Your task to perform on an android device: Open CNN.com Image 0: 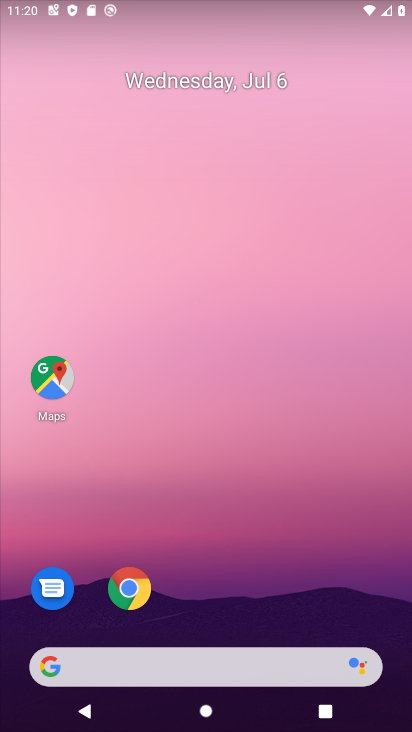
Step 0: drag from (269, 541) to (271, 341)
Your task to perform on an android device: Open CNN.com Image 1: 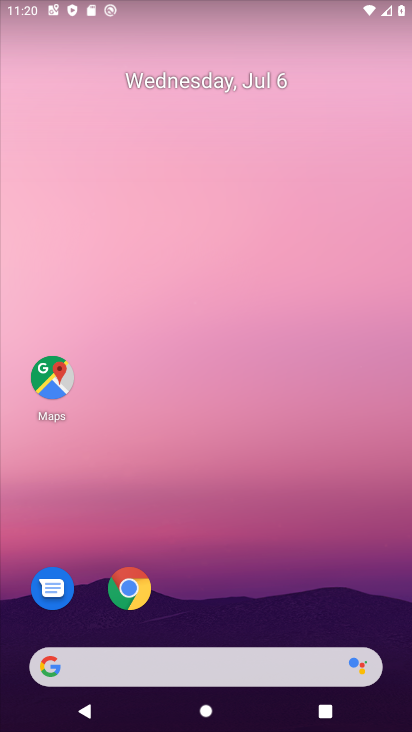
Step 1: drag from (232, 598) to (229, 180)
Your task to perform on an android device: Open CNN.com Image 2: 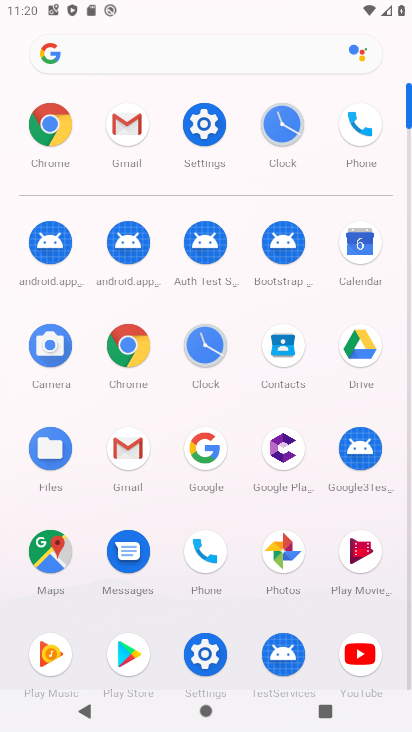
Step 2: click (47, 129)
Your task to perform on an android device: Open CNN.com Image 3: 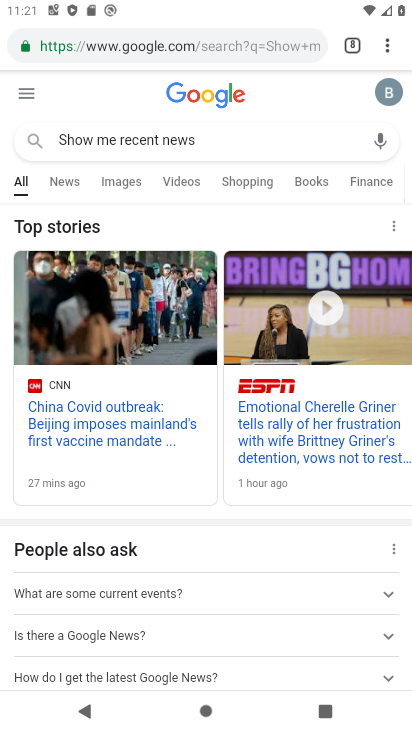
Step 3: click (386, 44)
Your task to perform on an android device: Open CNN.com Image 4: 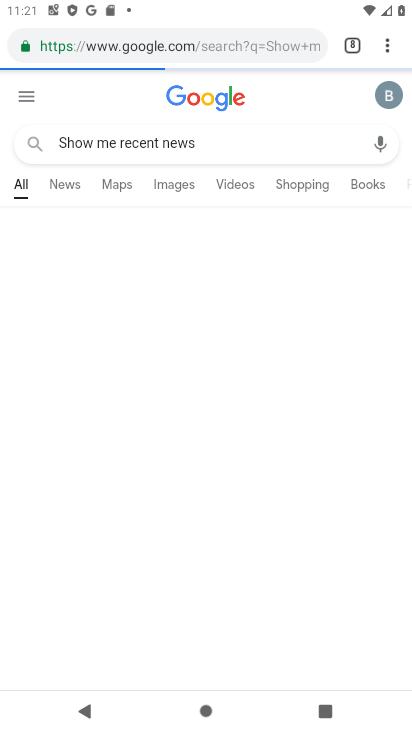
Step 4: click (386, 44)
Your task to perform on an android device: Open CNN.com Image 5: 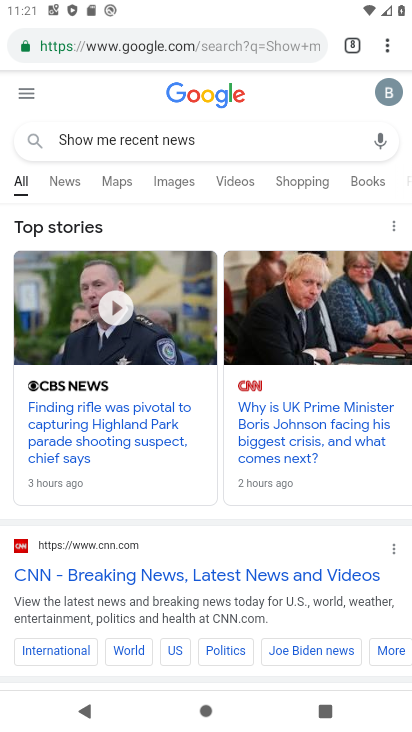
Step 5: click (386, 44)
Your task to perform on an android device: Open CNN.com Image 6: 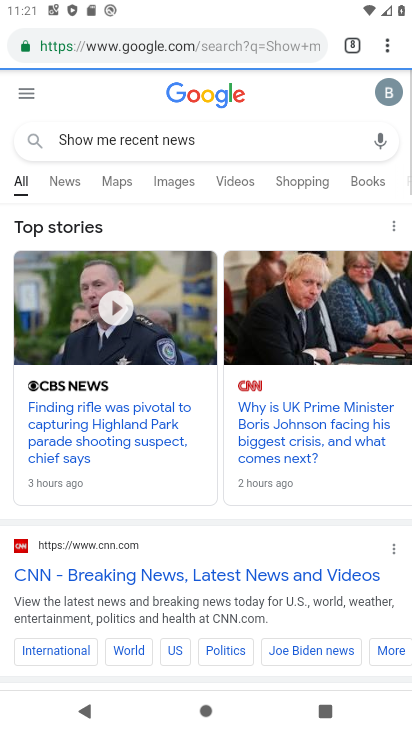
Step 6: click (381, 46)
Your task to perform on an android device: Open CNN.com Image 7: 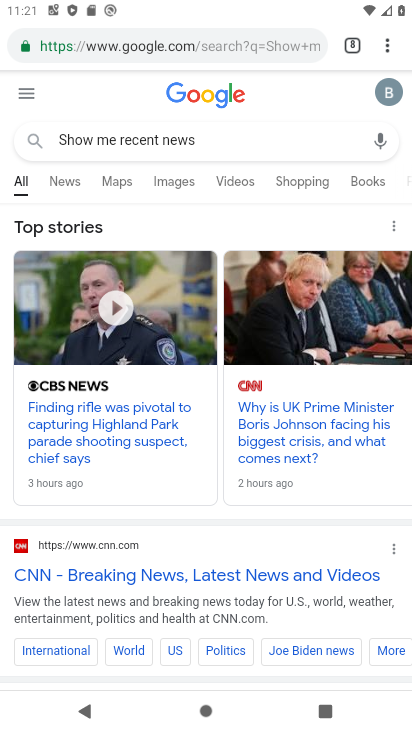
Step 7: click (381, 46)
Your task to perform on an android device: Open CNN.com Image 8: 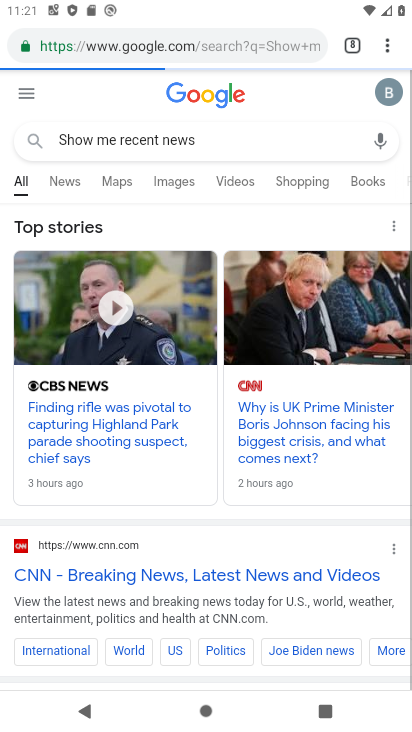
Step 8: click (387, 48)
Your task to perform on an android device: Open CNN.com Image 9: 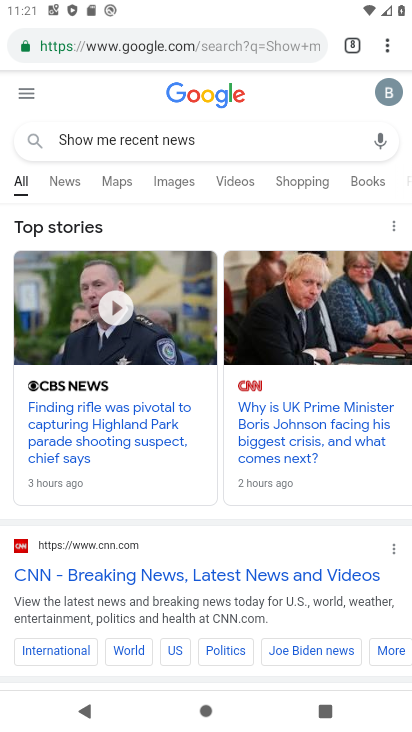
Step 9: click (387, 48)
Your task to perform on an android device: Open CNN.com Image 10: 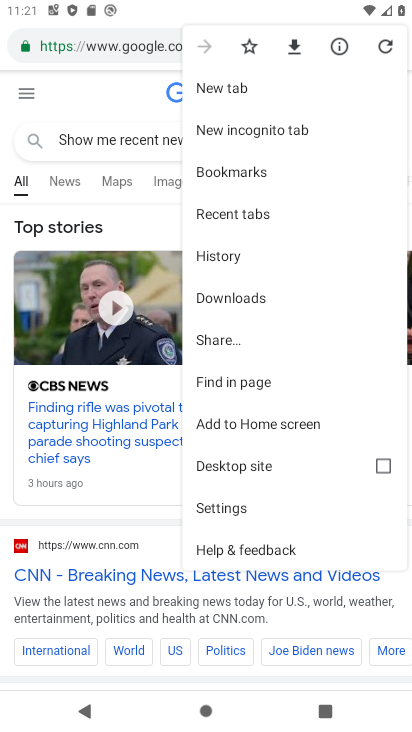
Step 10: click (204, 92)
Your task to perform on an android device: Open CNN.com Image 11: 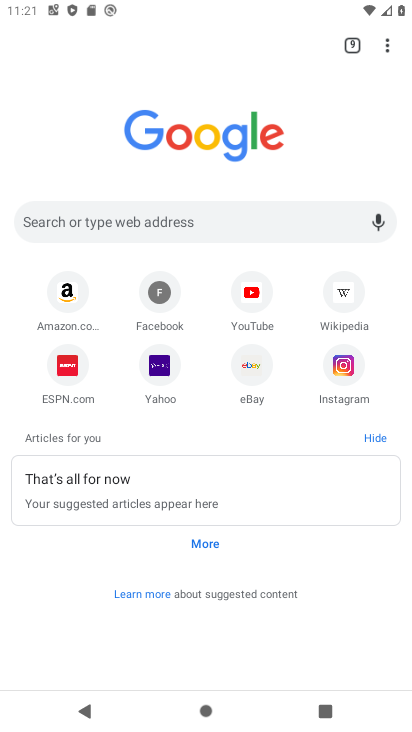
Step 11: click (151, 223)
Your task to perform on an android device: Open CNN.com Image 12: 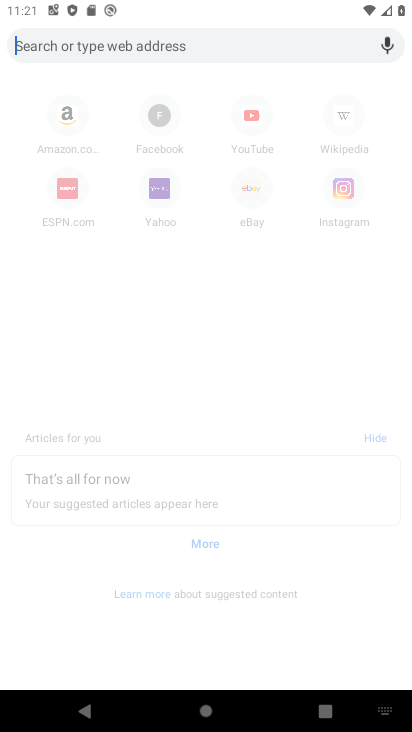
Step 12: type "CNN.com "
Your task to perform on an android device: Open CNN.com Image 13: 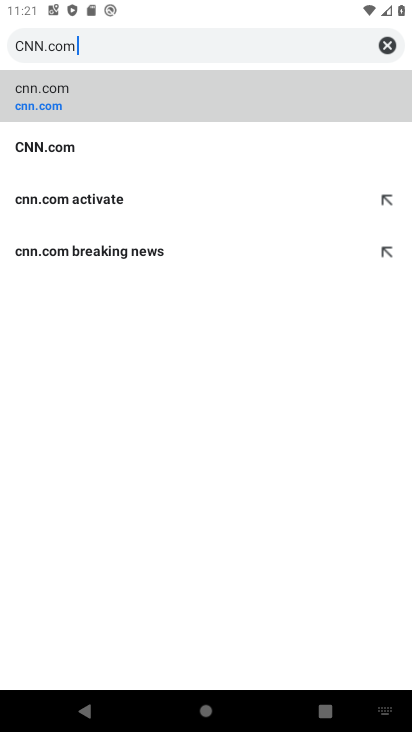
Step 13: click (131, 104)
Your task to perform on an android device: Open CNN.com Image 14: 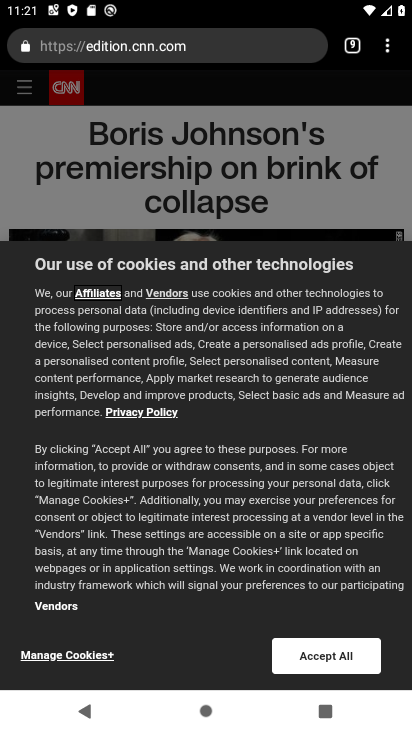
Step 14: click (318, 651)
Your task to perform on an android device: Open CNN.com Image 15: 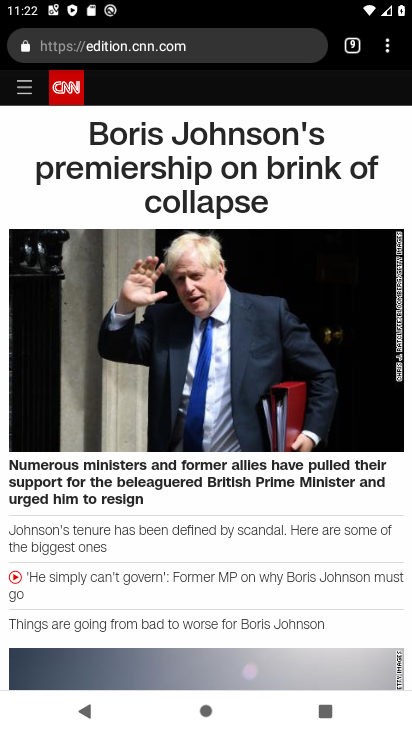
Step 15: task complete